Your task to perform on an android device: Go to battery settings Image 0: 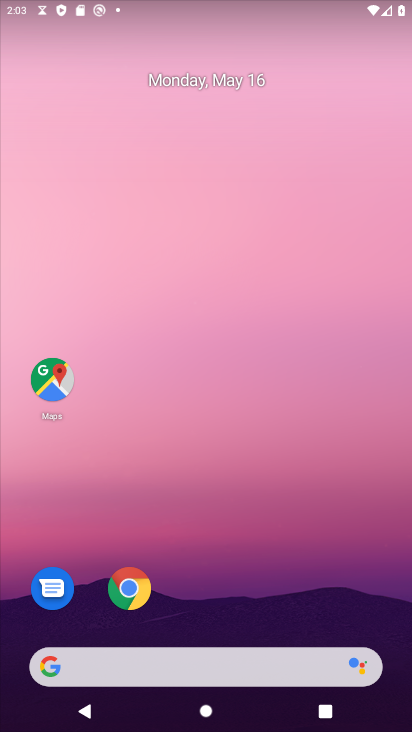
Step 0: drag from (235, 615) to (233, 207)
Your task to perform on an android device: Go to battery settings Image 1: 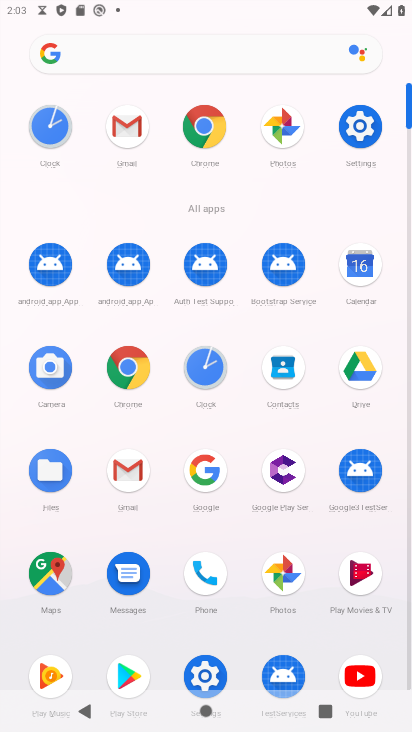
Step 1: click (354, 123)
Your task to perform on an android device: Go to battery settings Image 2: 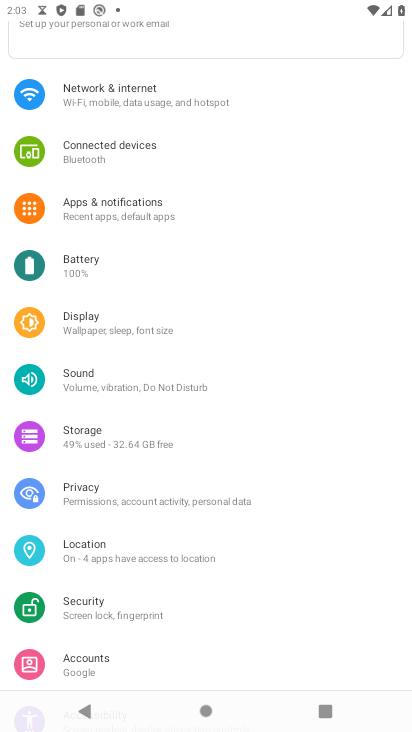
Step 2: click (72, 258)
Your task to perform on an android device: Go to battery settings Image 3: 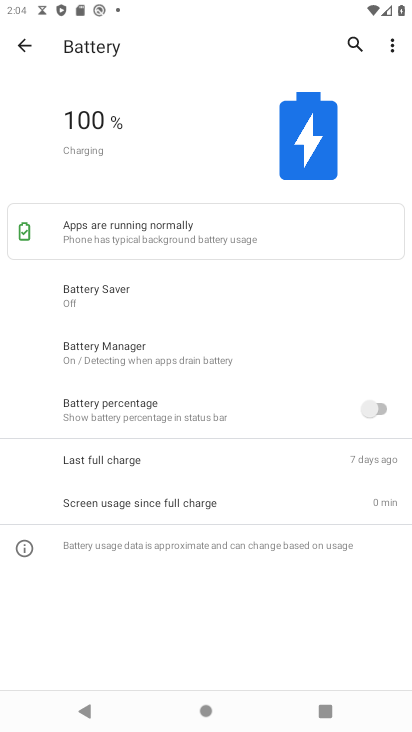
Step 3: task complete